Your task to perform on an android device: toggle javascript in the chrome app Image 0: 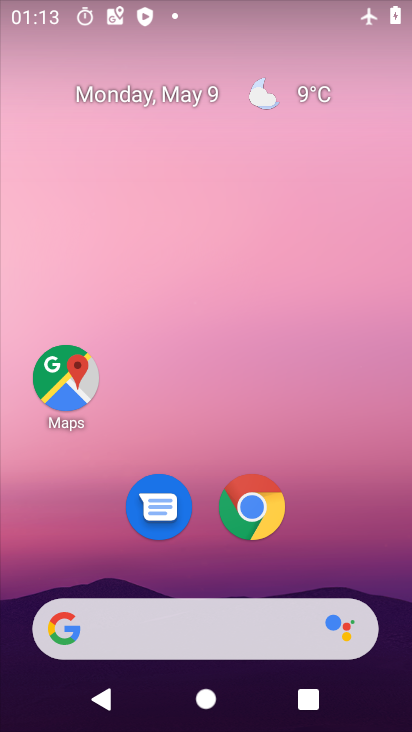
Step 0: click (251, 507)
Your task to perform on an android device: toggle javascript in the chrome app Image 1: 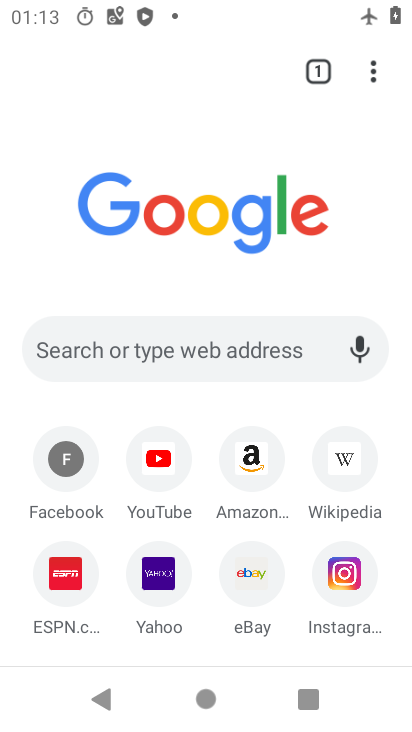
Step 1: click (375, 82)
Your task to perform on an android device: toggle javascript in the chrome app Image 2: 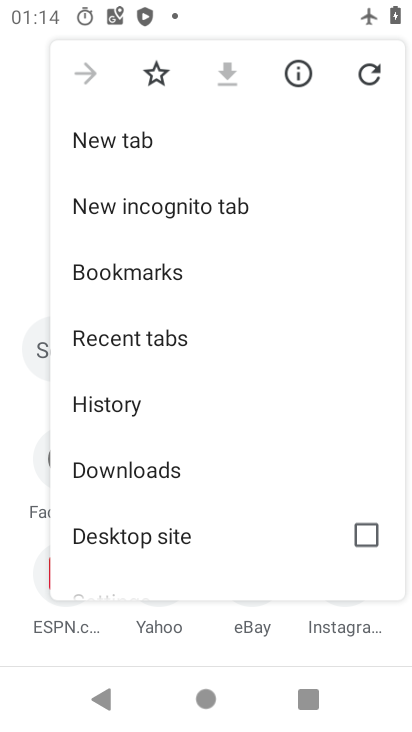
Step 2: drag from (128, 503) to (142, 238)
Your task to perform on an android device: toggle javascript in the chrome app Image 3: 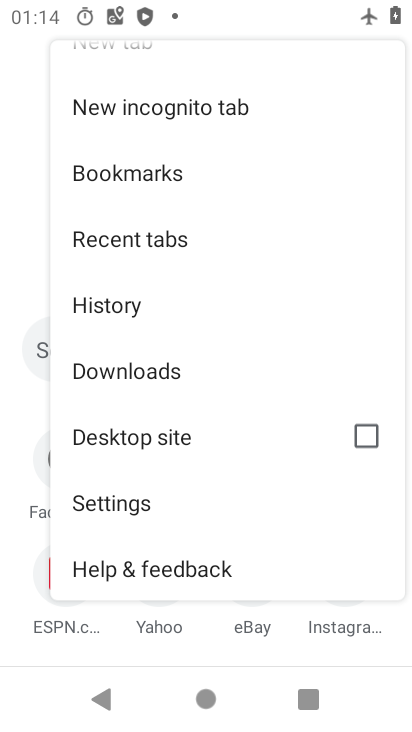
Step 3: click (117, 502)
Your task to perform on an android device: toggle javascript in the chrome app Image 4: 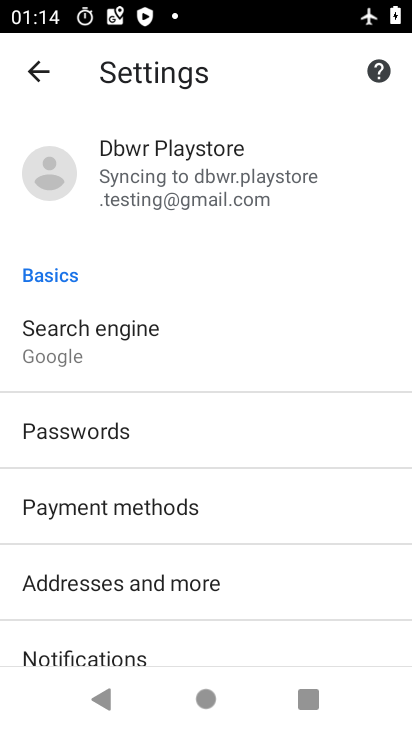
Step 4: drag from (149, 644) to (137, 308)
Your task to perform on an android device: toggle javascript in the chrome app Image 5: 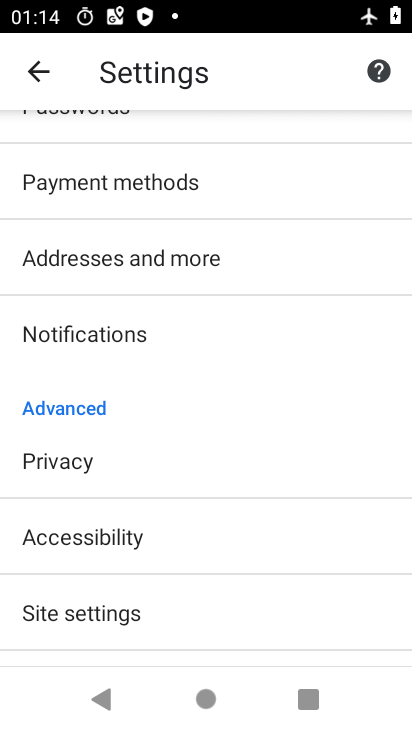
Step 5: click (129, 615)
Your task to perform on an android device: toggle javascript in the chrome app Image 6: 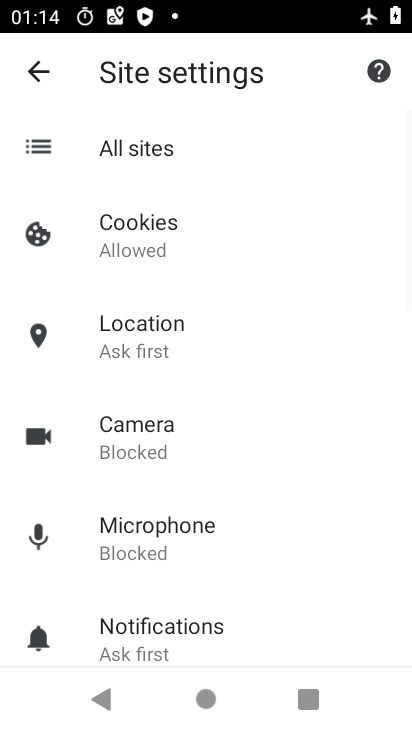
Step 6: drag from (187, 620) to (176, 249)
Your task to perform on an android device: toggle javascript in the chrome app Image 7: 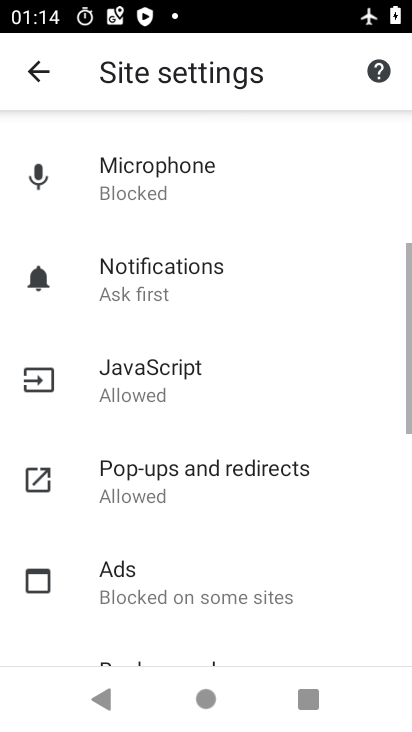
Step 7: click (130, 381)
Your task to perform on an android device: toggle javascript in the chrome app Image 8: 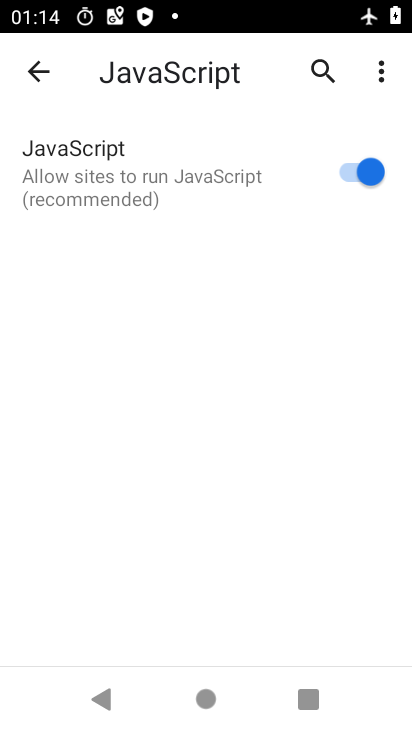
Step 8: click (351, 176)
Your task to perform on an android device: toggle javascript in the chrome app Image 9: 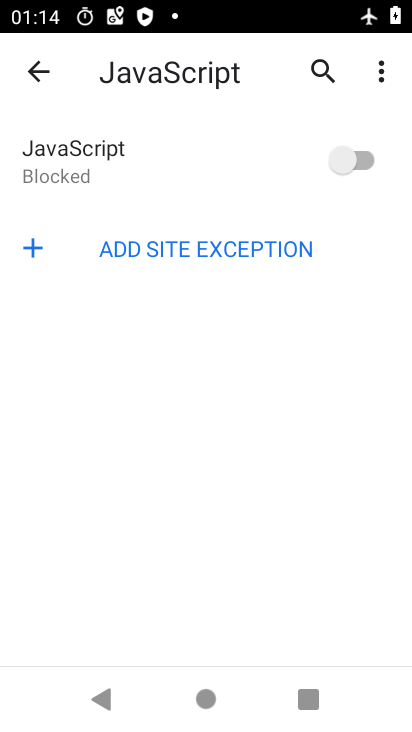
Step 9: task complete